Your task to perform on an android device: Open Youtube and go to the subscriptions tab Image 0: 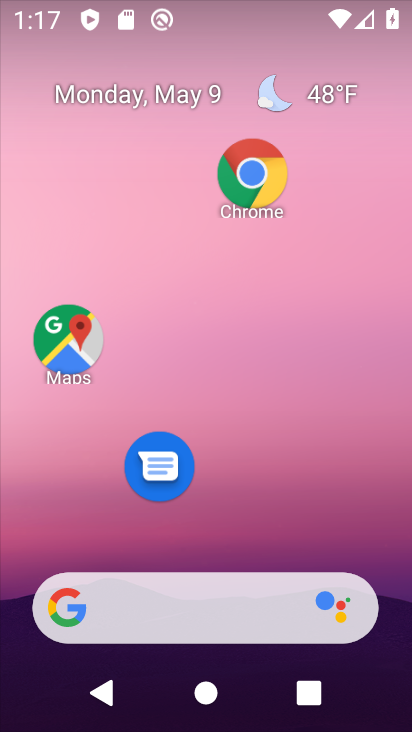
Step 0: drag from (267, 533) to (267, 163)
Your task to perform on an android device: Open Youtube and go to the subscriptions tab Image 1: 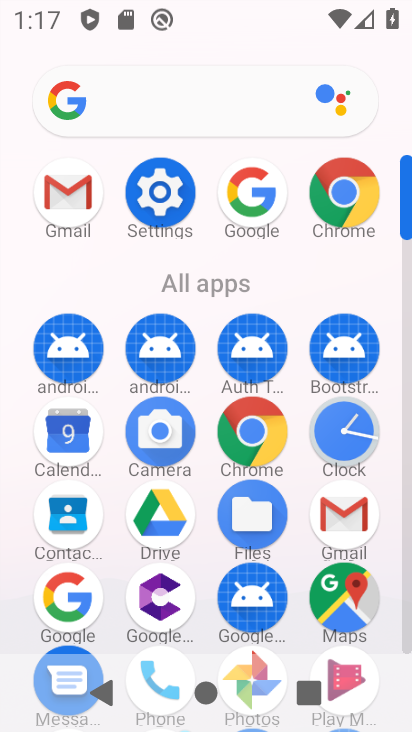
Step 1: drag from (307, 544) to (316, 215)
Your task to perform on an android device: Open Youtube and go to the subscriptions tab Image 2: 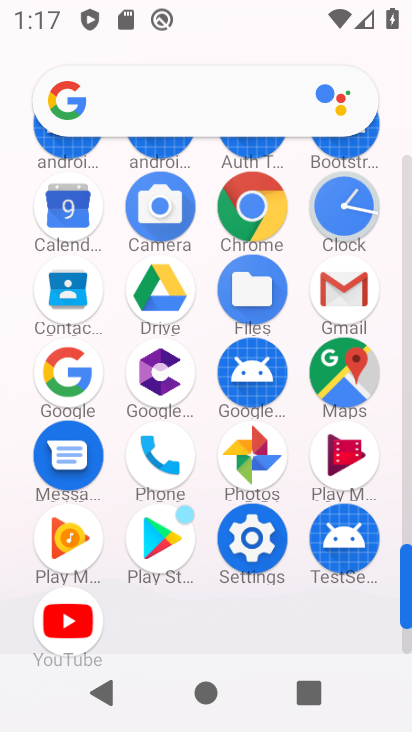
Step 2: click (70, 605)
Your task to perform on an android device: Open Youtube and go to the subscriptions tab Image 3: 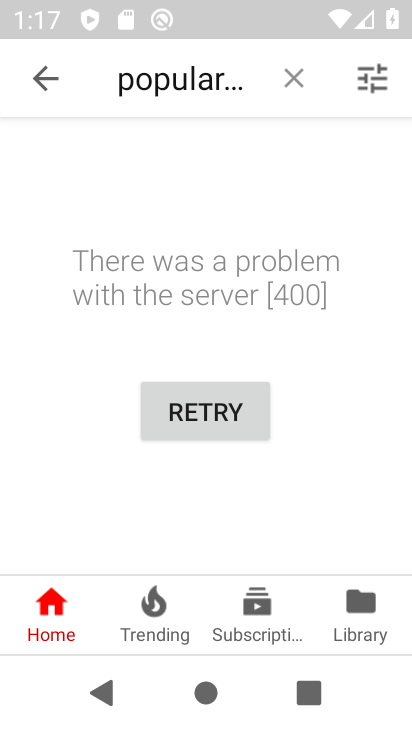
Step 3: click (249, 589)
Your task to perform on an android device: Open Youtube and go to the subscriptions tab Image 4: 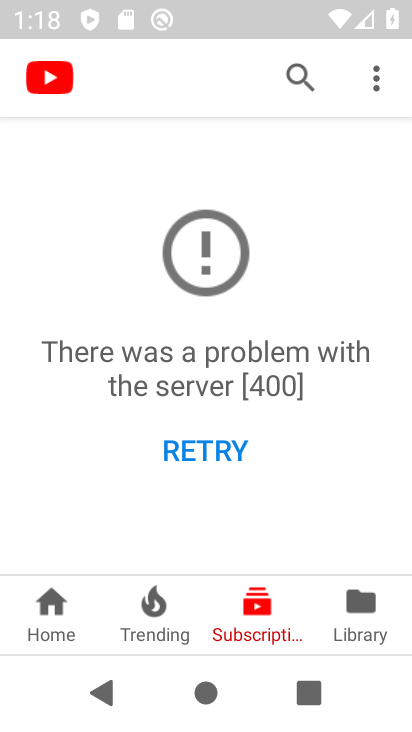
Step 4: task complete